Your task to perform on an android device: change the clock style Image 0: 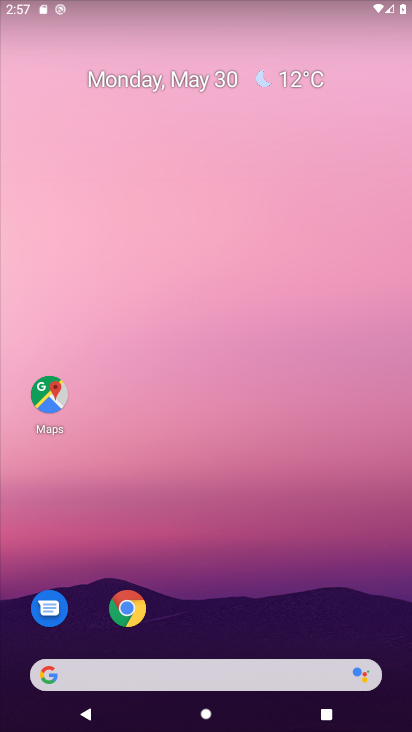
Step 0: drag from (290, 404) to (297, 9)
Your task to perform on an android device: change the clock style Image 1: 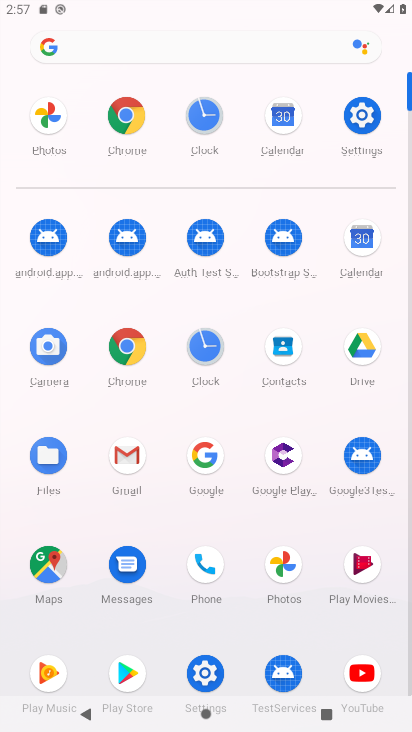
Step 1: click (205, 122)
Your task to perform on an android device: change the clock style Image 2: 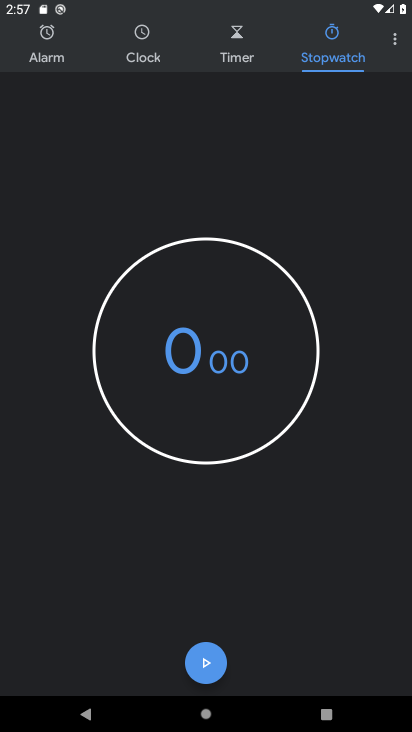
Step 2: click (399, 31)
Your task to perform on an android device: change the clock style Image 3: 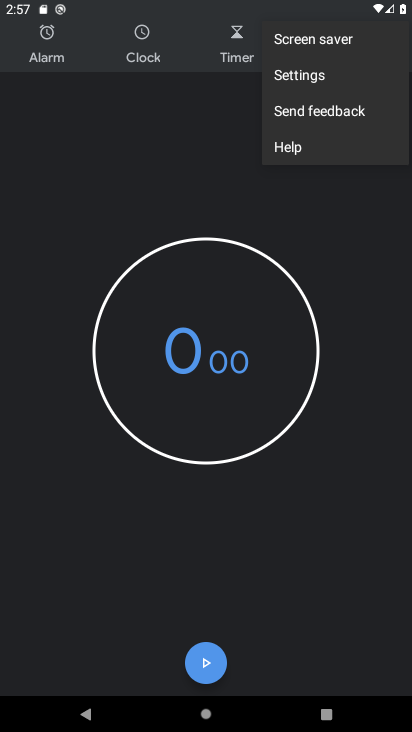
Step 3: click (309, 77)
Your task to perform on an android device: change the clock style Image 4: 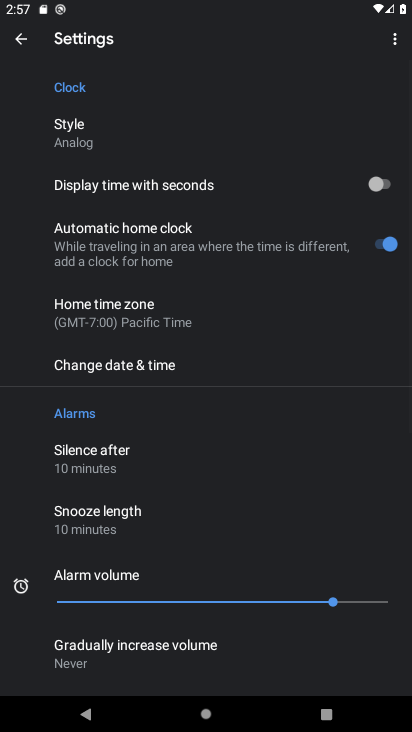
Step 4: click (149, 132)
Your task to perform on an android device: change the clock style Image 5: 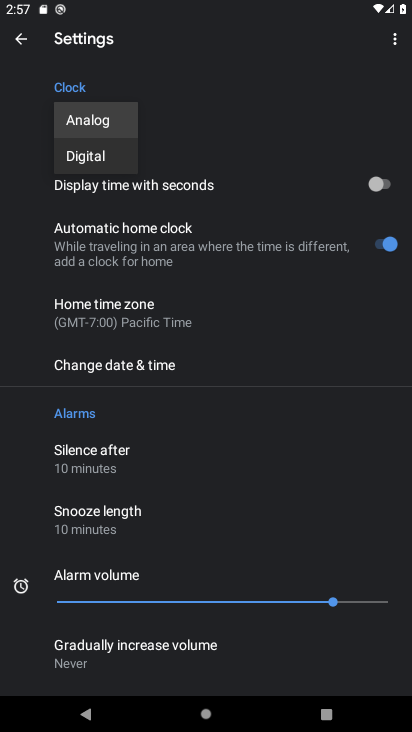
Step 5: click (104, 152)
Your task to perform on an android device: change the clock style Image 6: 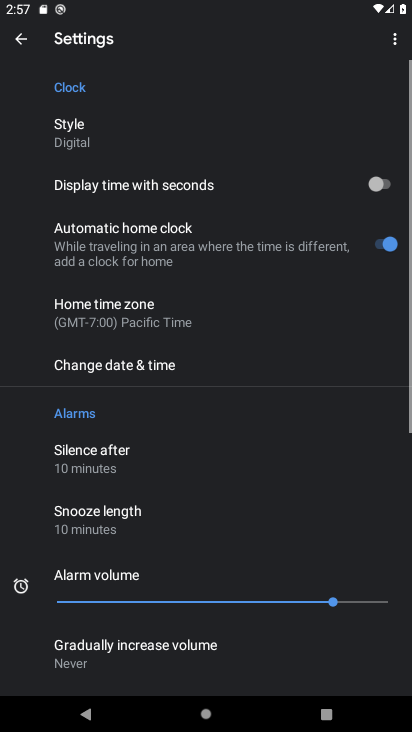
Step 6: task complete